Your task to perform on an android device: Open Android settings Image 0: 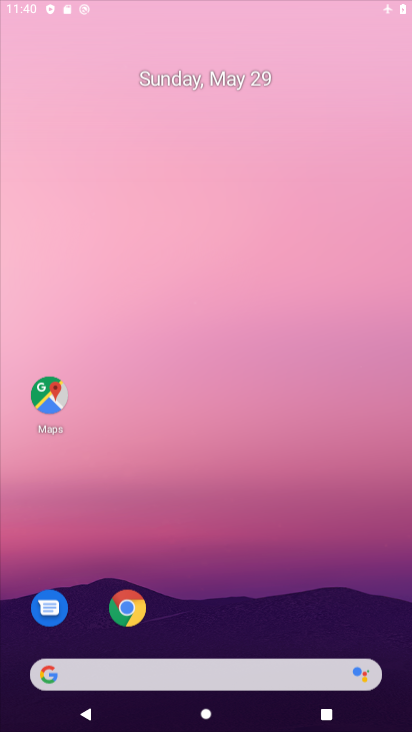
Step 0: press home button
Your task to perform on an android device: Open Android settings Image 1: 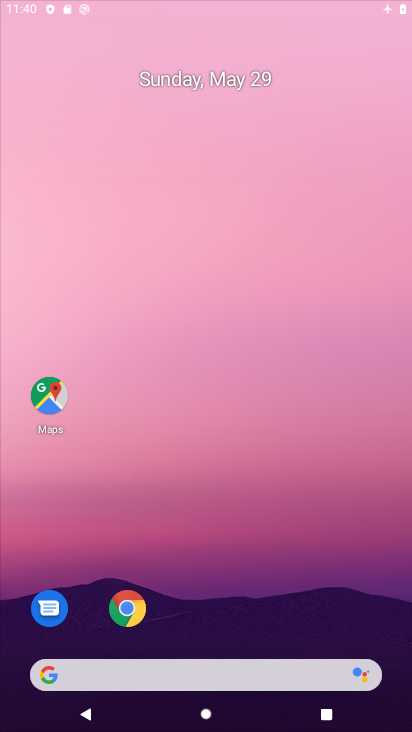
Step 1: drag from (167, 651) to (153, 82)
Your task to perform on an android device: Open Android settings Image 2: 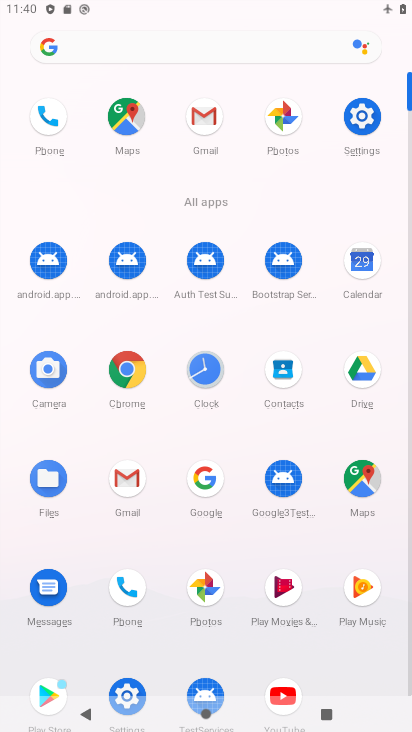
Step 2: click (365, 134)
Your task to perform on an android device: Open Android settings Image 3: 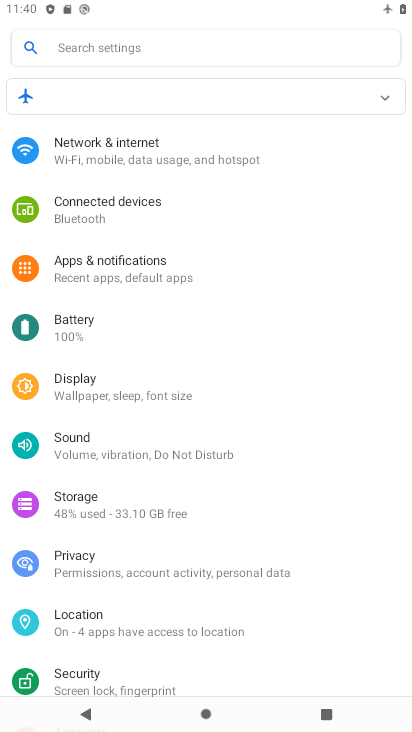
Step 3: task complete